Your task to perform on an android device: Open the Play Movies app and select the watchlist tab. Image 0: 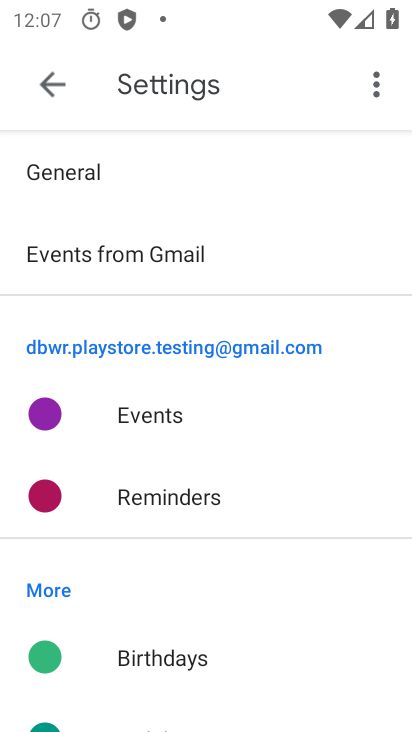
Step 0: press home button
Your task to perform on an android device: Open the Play Movies app and select the watchlist tab. Image 1: 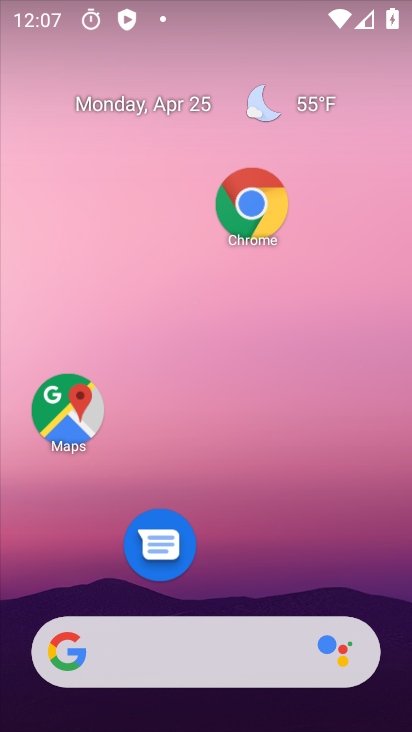
Step 1: drag from (235, 702) to (223, 220)
Your task to perform on an android device: Open the Play Movies app and select the watchlist tab. Image 2: 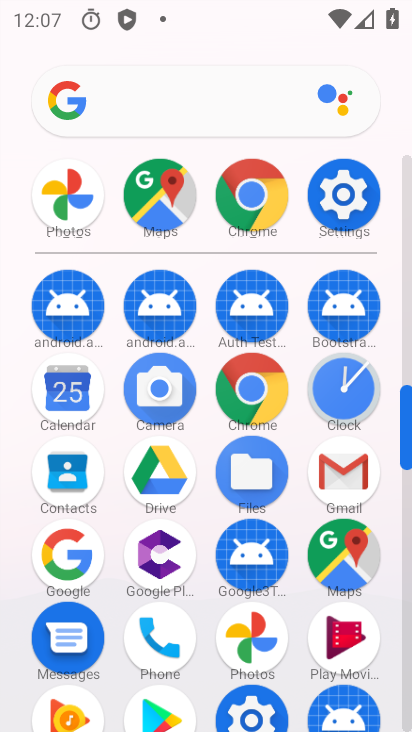
Step 2: click (346, 646)
Your task to perform on an android device: Open the Play Movies app and select the watchlist tab. Image 3: 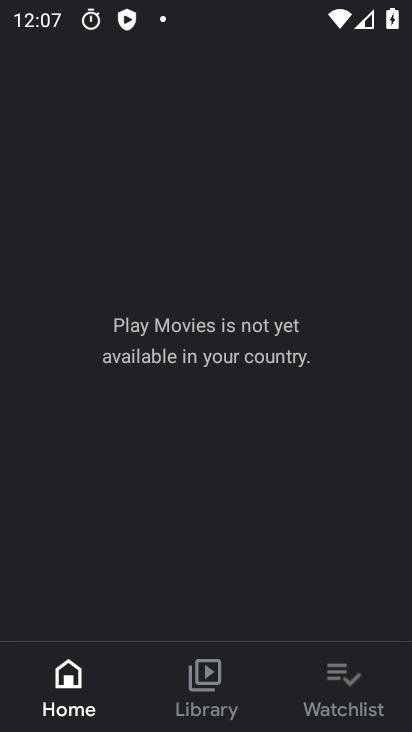
Step 3: click (353, 685)
Your task to perform on an android device: Open the Play Movies app and select the watchlist tab. Image 4: 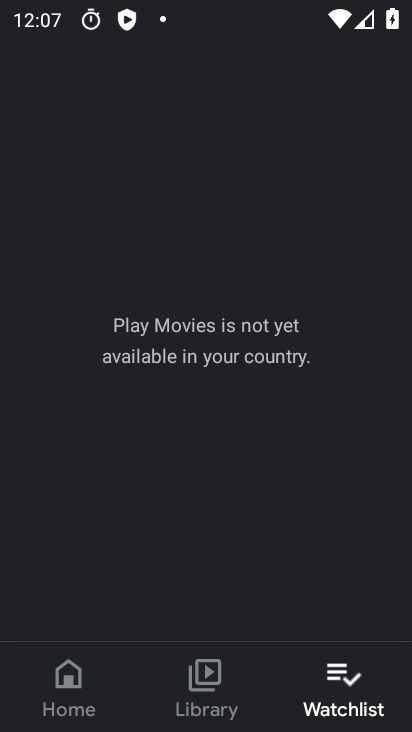
Step 4: task complete